Your task to perform on an android device: show emergency info Image 0: 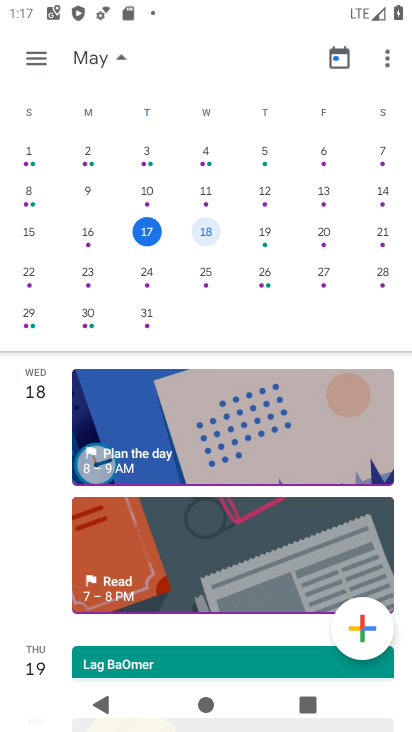
Step 0: press home button
Your task to perform on an android device: show emergency info Image 1: 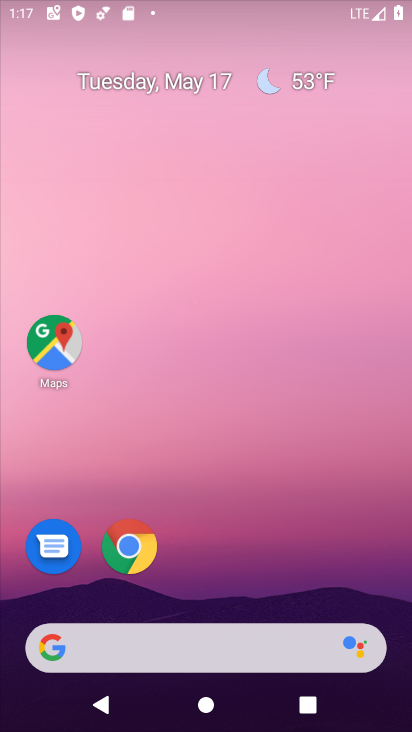
Step 1: drag from (264, 592) to (273, 97)
Your task to perform on an android device: show emergency info Image 2: 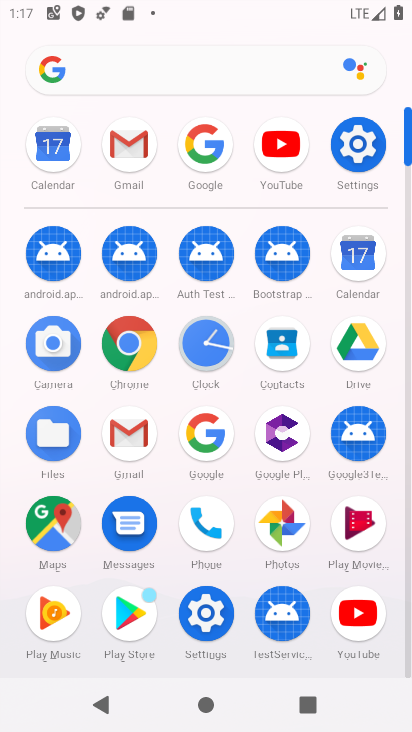
Step 2: click (373, 146)
Your task to perform on an android device: show emergency info Image 3: 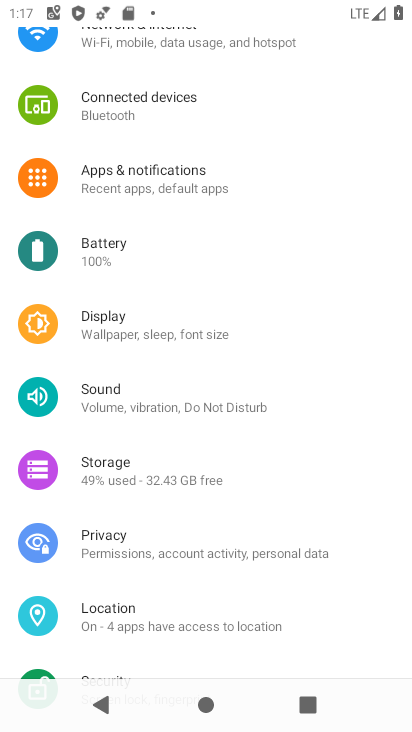
Step 3: drag from (225, 591) to (243, 163)
Your task to perform on an android device: show emergency info Image 4: 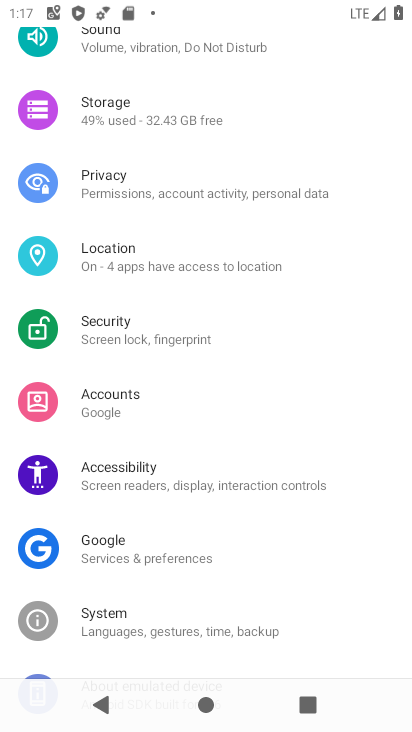
Step 4: drag from (239, 561) to (243, 258)
Your task to perform on an android device: show emergency info Image 5: 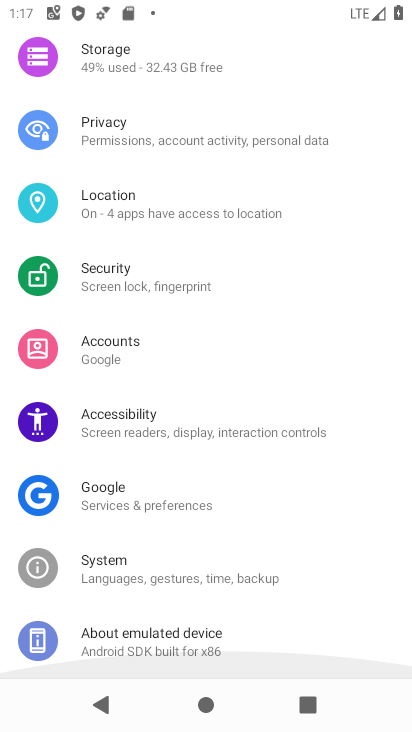
Step 5: drag from (218, 516) to (233, 216)
Your task to perform on an android device: show emergency info Image 6: 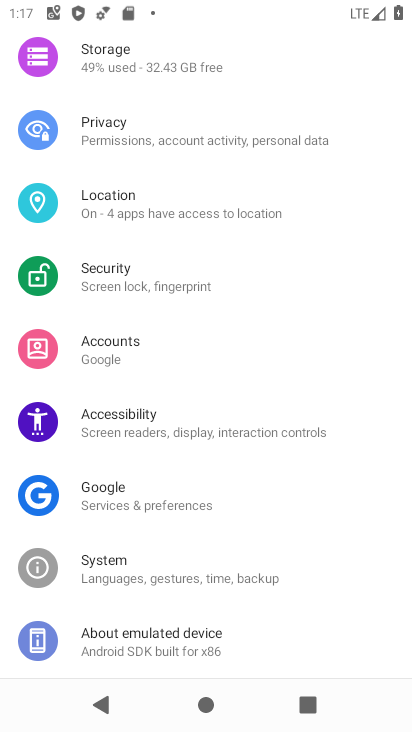
Step 6: click (153, 624)
Your task to perform on an android device: show emergency info Image 7: 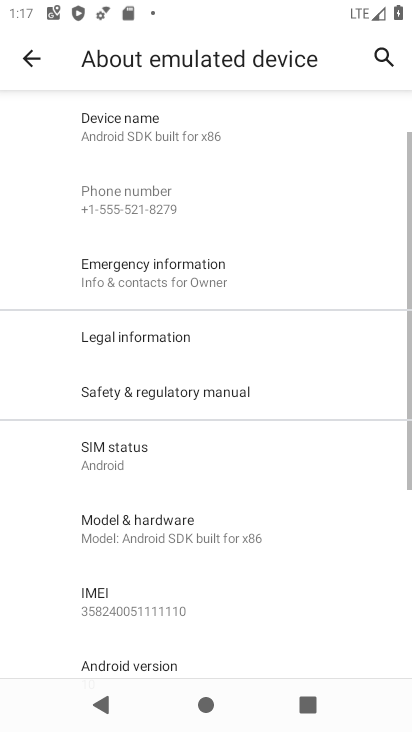
Step 7: click (195, 259)
Your task to perform on an android device: show emergency info Image 8: 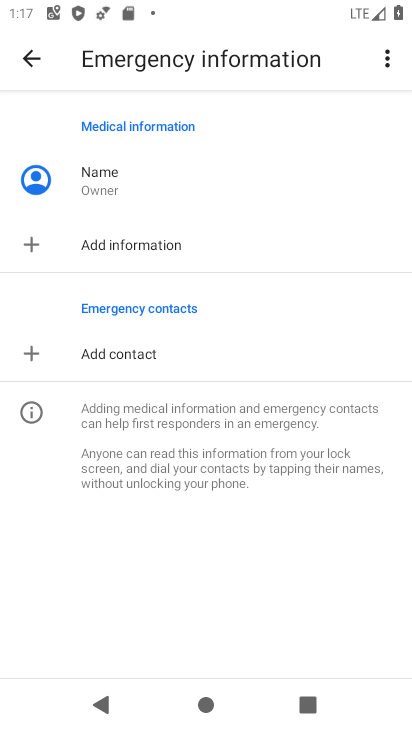
Step 8: task complete